Your task to perform on an android device: check out phone information Image 0: 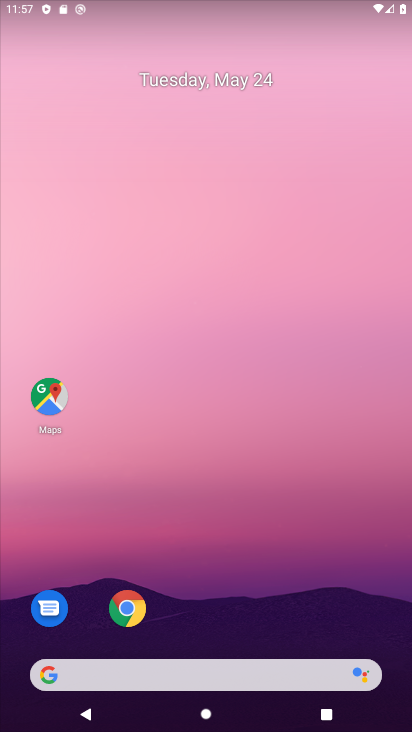
Step 0: drag from (304, 616) to (259, 227)
Your task to perform on an android device: check out phone information Image 1: 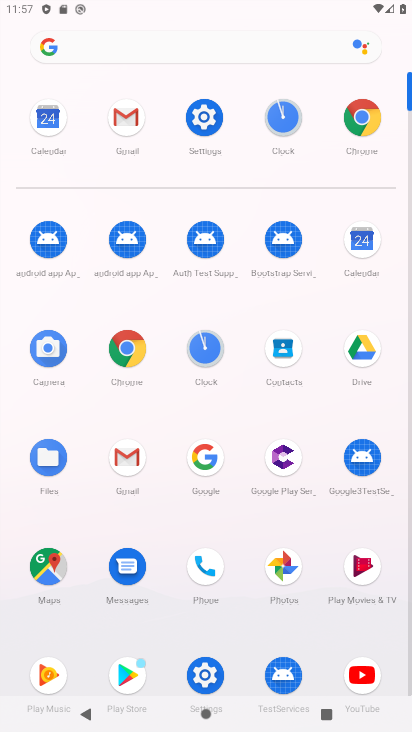
Step 1: click (206, 125)
Your task to perform on an android device: check out phone information Image 2: 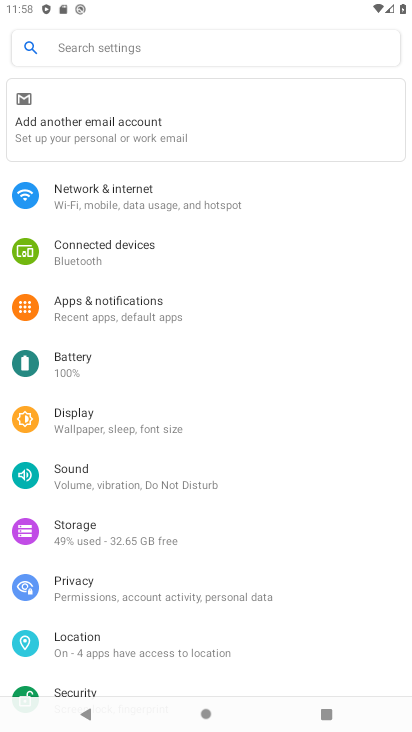
Step 2: task complete